Your task to perform on an android device: Show me the alarms in the clock app Image 0: 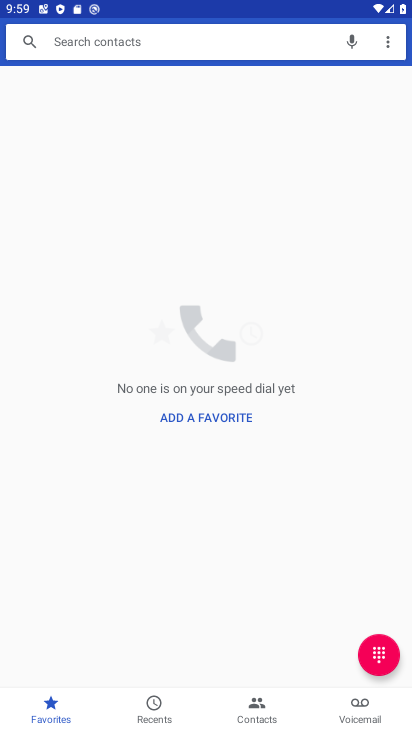
Step 0: press home button
Your task to perform on an android device: Show me the alarms in the clock app Image 1: 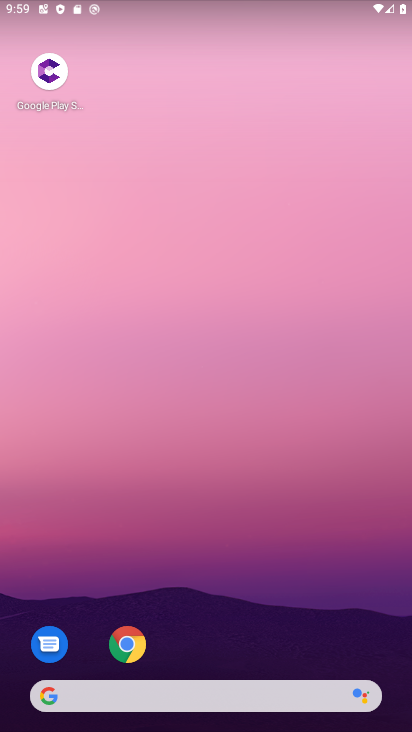
Step 1: drag from (217, 512) to (237, 108)
Your task to perform on an android device: Show me the alarms in the clock app Image 2: 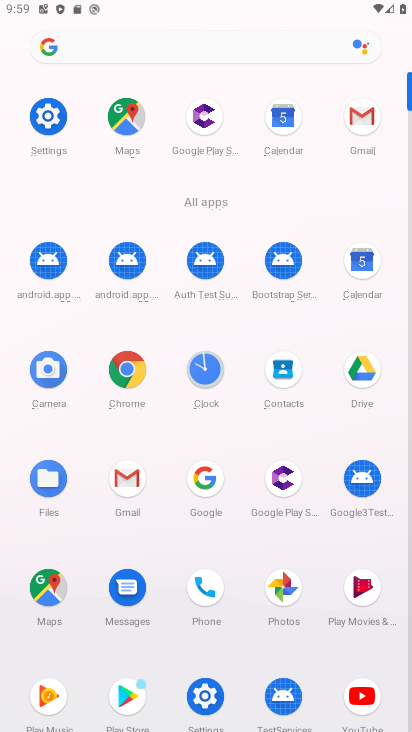
Step 2: click (208, 382)
Your task to perform on an android device: Show me the alarms in the clock app Image 3: 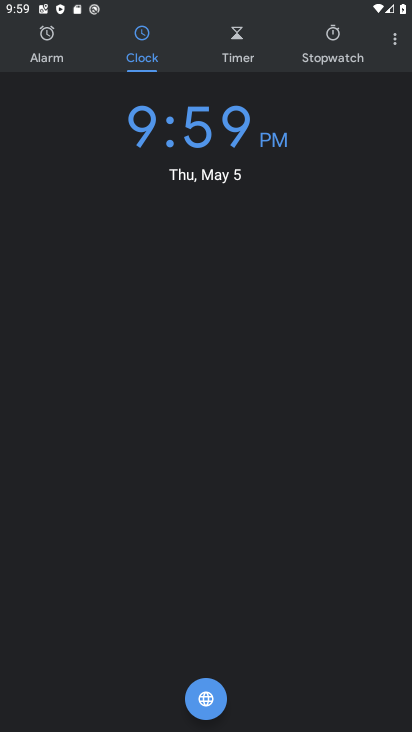
Step 3: click (39, 51)
Your task to perform on an android device: Show me the alarms in the clock app Image 4: 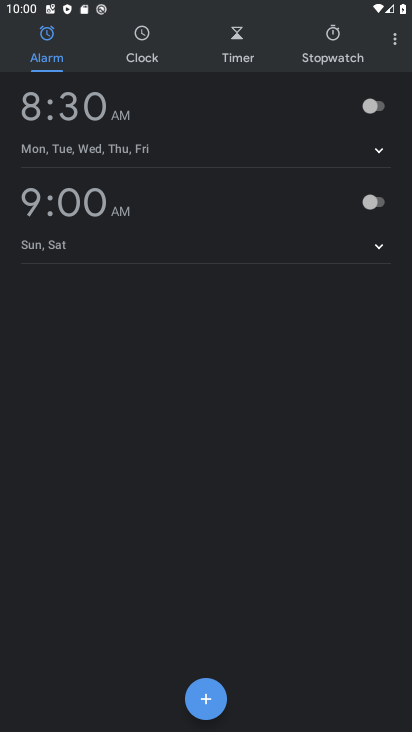
Step 4: task complete